Your task to perform on an android device: turn on location history Image 0: 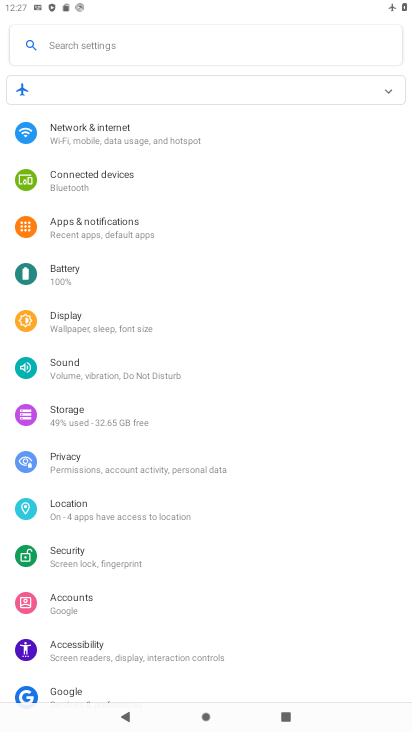
Step 0: click (105, 500)
Your task to perform on an android device: turn on location history Image 1: 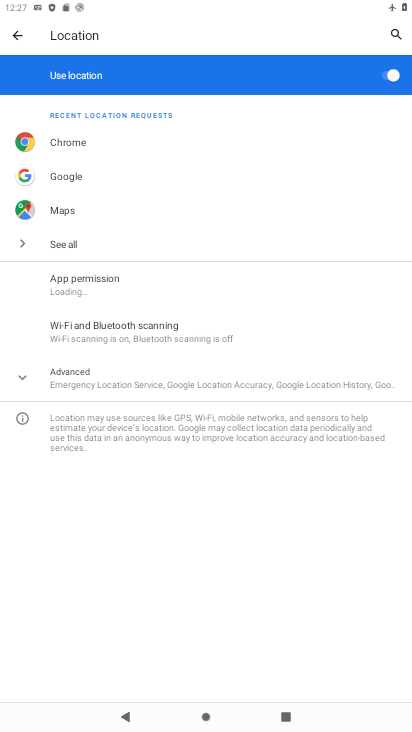
Step 1: click (124, 370)
Your task to perform on an android device: turn on location history Image 2: 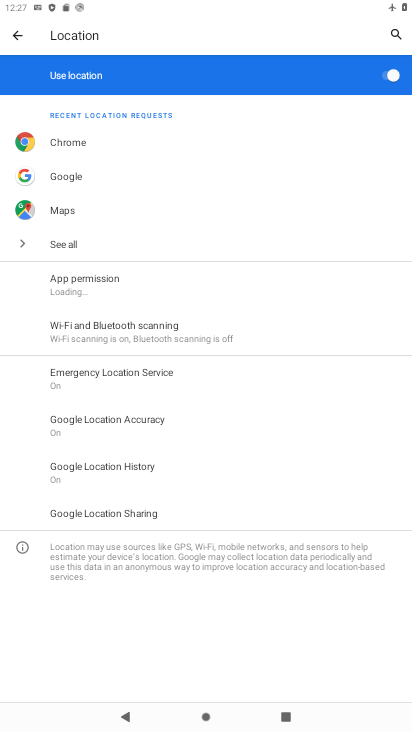
Step 2: click (148, 457)
Your task to perform on an android device: turn on location history Image 3: 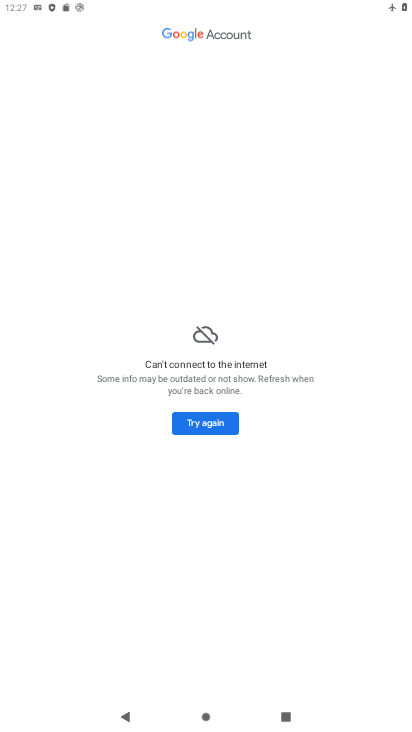
Step 3: task complete